Your task to perform on an android device: all mails in gmail Image 0: 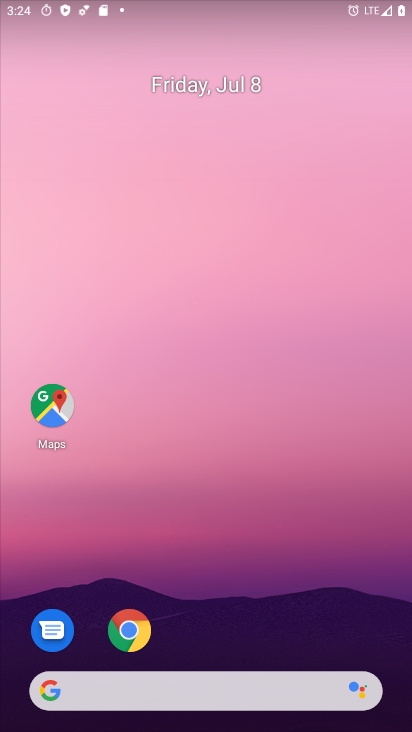
Step 0: drag from (232, 548) to (227, 147)
Your task to perform on an android device: all mails in gmail Image 1: 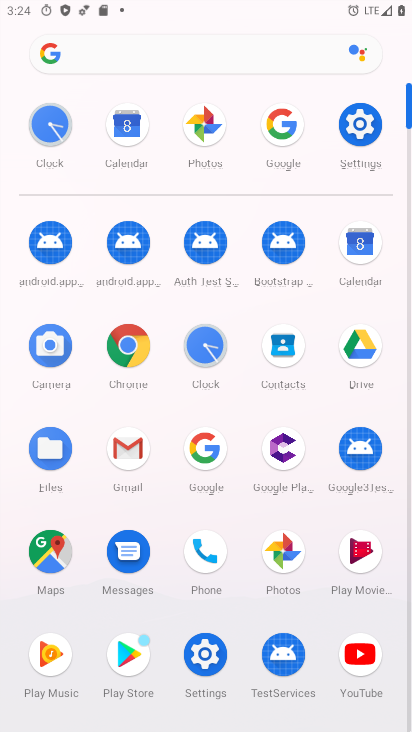
Step 1: click (128, 445)
Your task to perform on an android device: all mails in gmail Image 2: 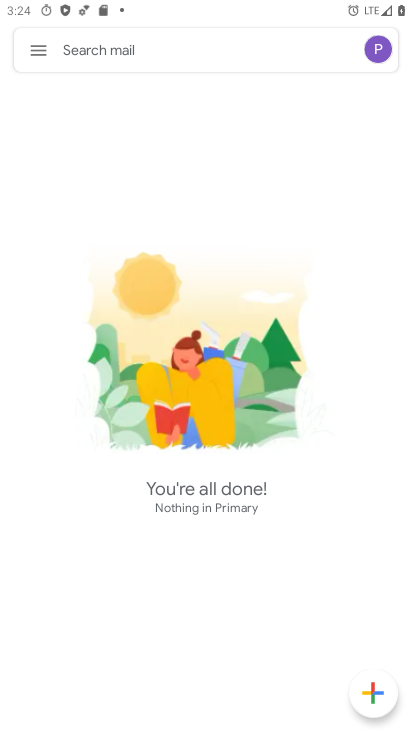
Step 2: click (41, 49)
Your task to perform on an android device: all mails in gmail Image 3: 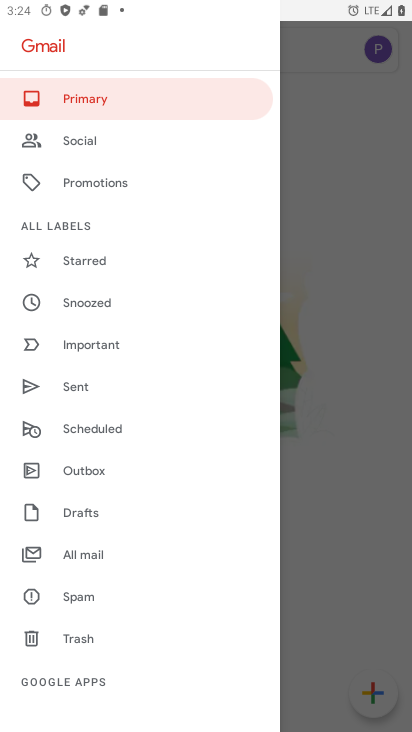
Step 3: click (82, 545)
Your task to perform on an android device: all mails in gmail Image 4: 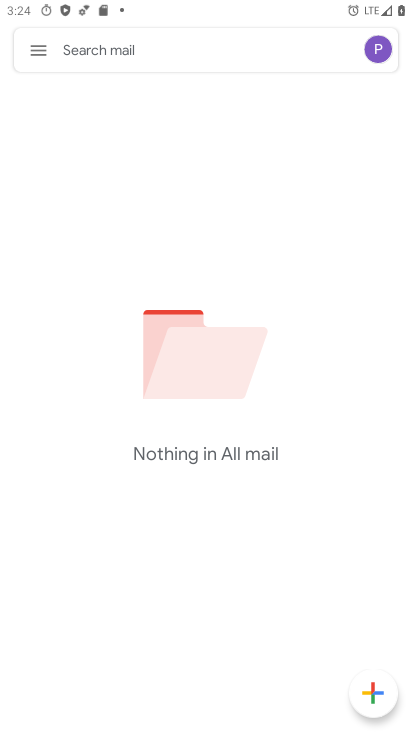
Step 4: task complete